Your task to perform on an android device: toggle airplane mode Image 0: 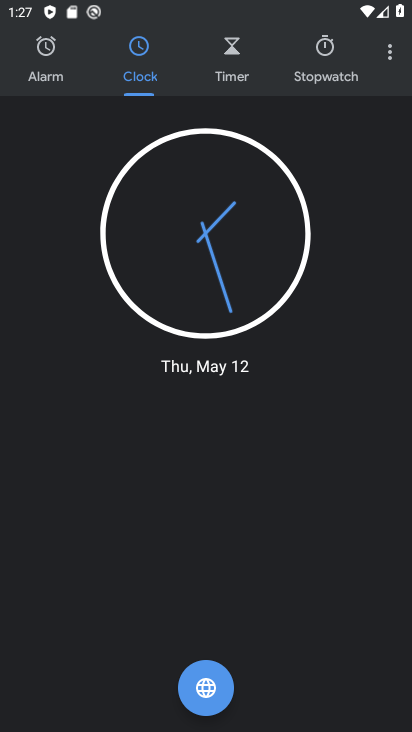
Step 0: press home button
Your task to perform on an android device: toggle airplane mode Image 1: 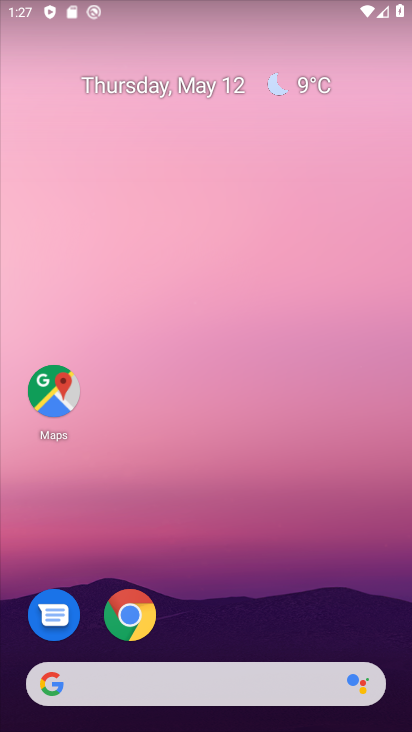
Step 1: drag from (221, 6) to (137, 287)
Your task to perform on an android device: toggle airplane mode Image 2: 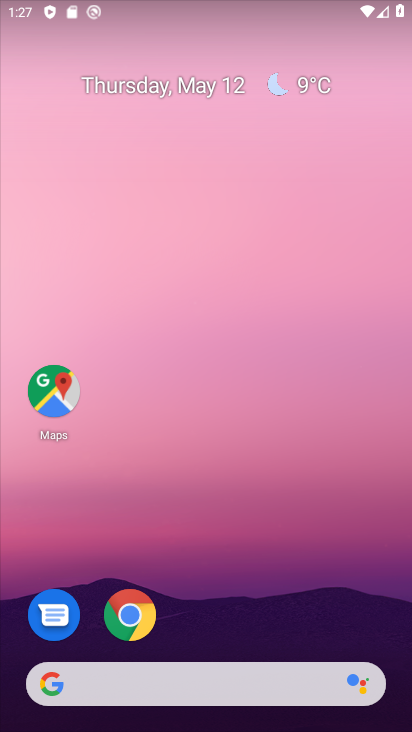
Step 2: drag from (294, 16) to (243, 407)
Your task to perform on an android device: toggle airplane mode Image 3: 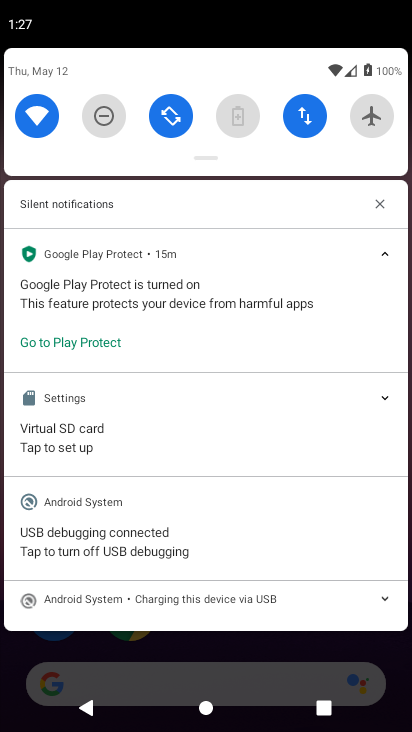
Step 3: click (358, 129)
Your task to perform on an android device: toggle airplane mode Image 4: 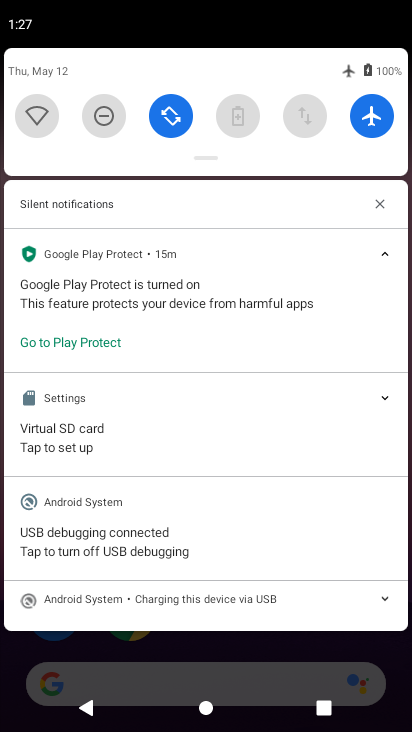
Step 4: task complete